Your task to perform on an android device: Open sound settings Image 0: 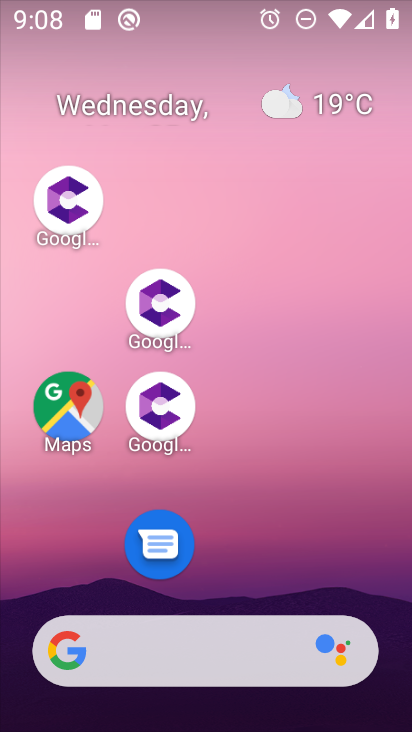
Step 0: drag from (312, 522) to (250, 120)
Your task to perform on an android device: Open sound settings Image 1: 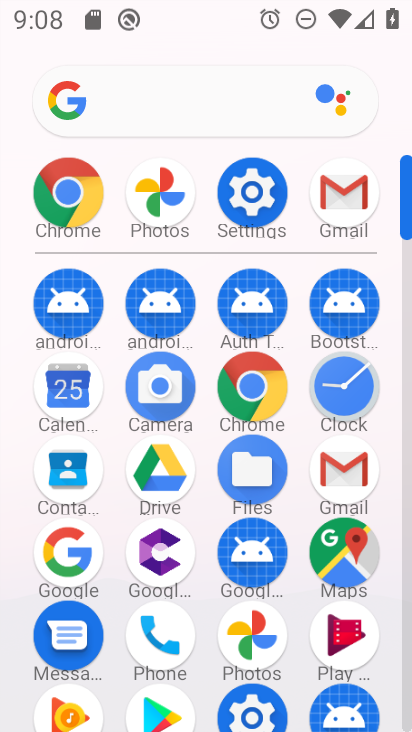
Step 1: click (258, 200)
Your task to perform on an android device: Open sound settings Image 2: 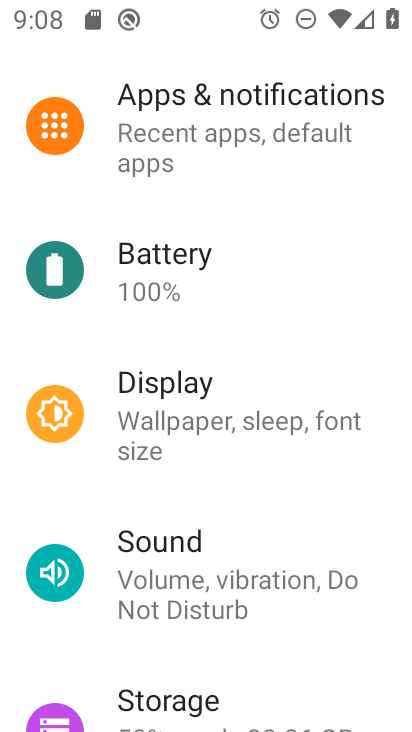
Step 2: click (155, 534)
Your task to perform on an android device: Open sound settings Image 3: 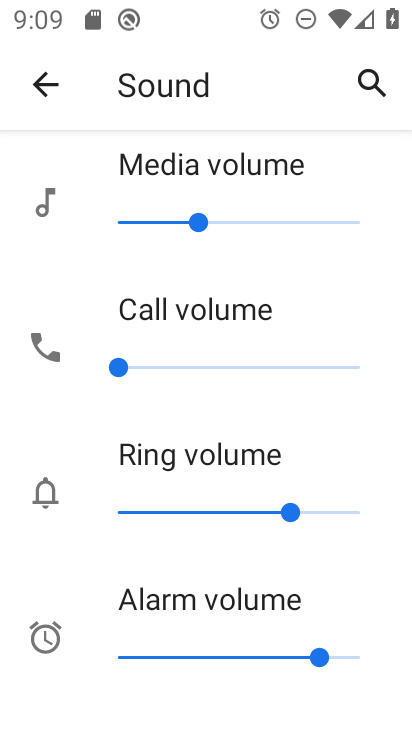
Step 3: task complete